Your task to perform on an android device: Go to Google Image 0: 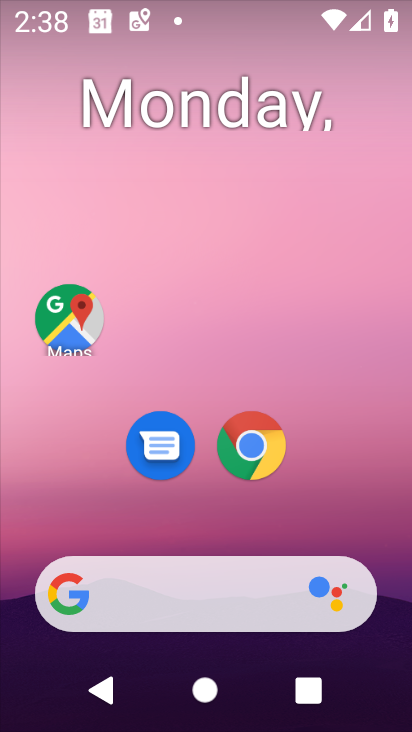
Step 0: drag from (295, 523) to (302, 79)
Your task to perform on an android device: Go to Google Image 1: 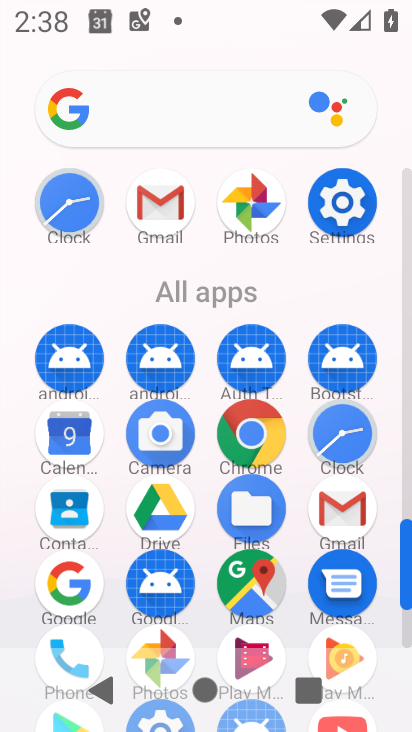
Step 1: click (84, 591)
Your task to perform on an android device: Go to Google Image 2: 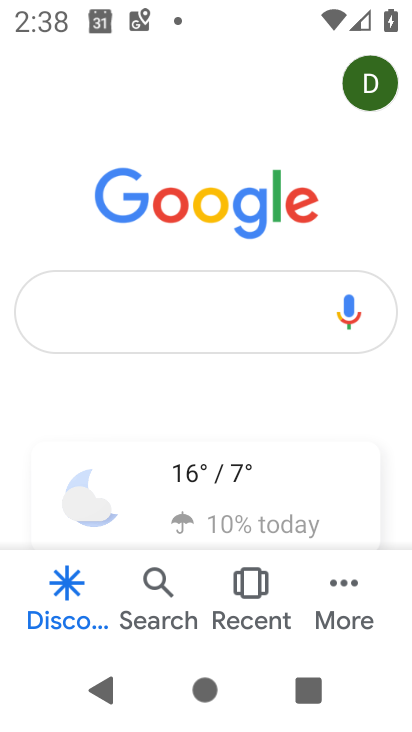
Step 2: task complete